Your task to perform on an android device: turn vacation reply on in the gmail app Image 0: 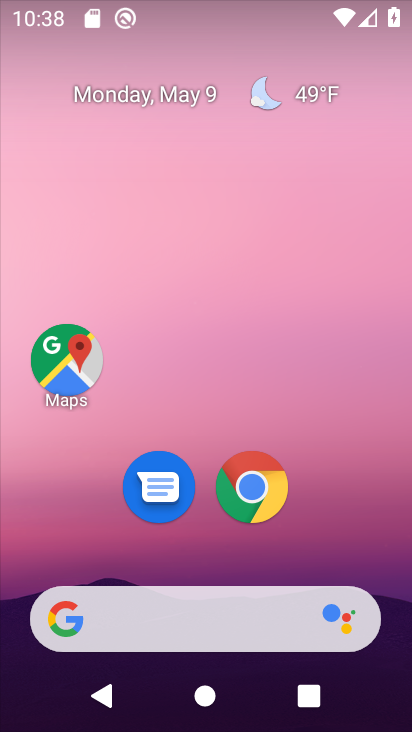
Step 0: drag from (329, 526) to (154, 135)
Your task to perform on an android device: turn vacation reply on in the gmail app Image 1: 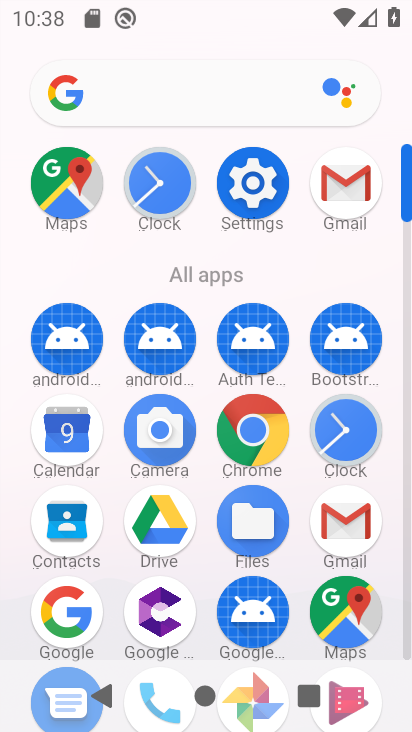
Step 1: click (349, 182)
Your task to perform on an android device: turn vacation reply on in the gmail app Image 2: 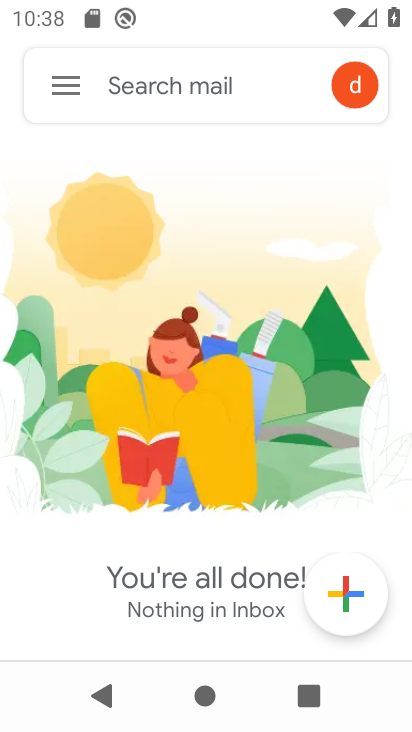
Step 2: click (63, 87)
Your task to perform on an android device: turn vacation reply on in the gmail app Image 3: 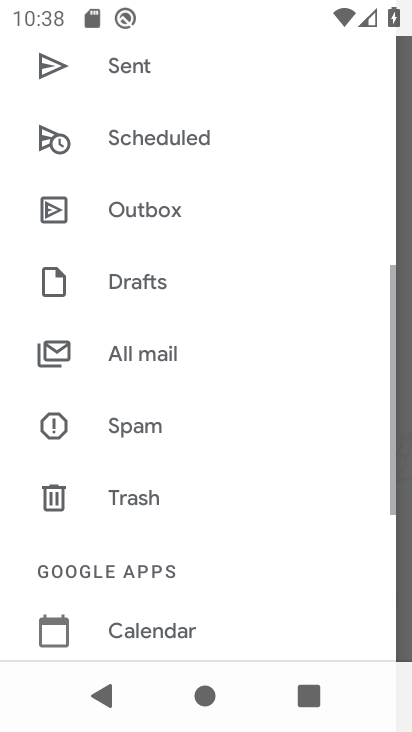
Step 3: drag from (159, 600) to (159, 196)
Your task to perform on an android device: turn vacation reply on in the gmail app Image 4: 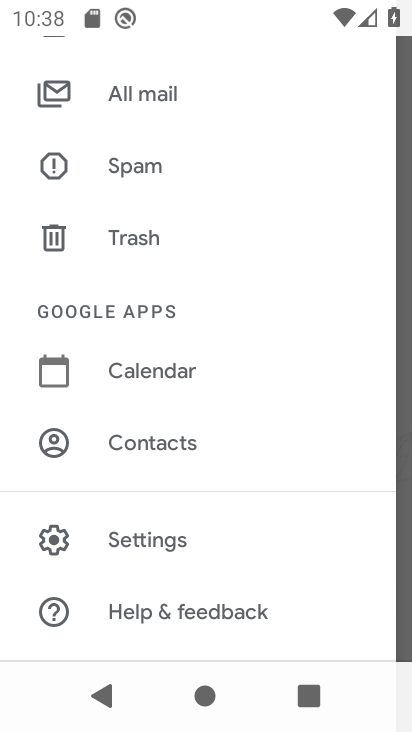
Step 4: click (157, 542)
Your task to perform on an android device: turn vacation reply on in the gmail app Image 5: 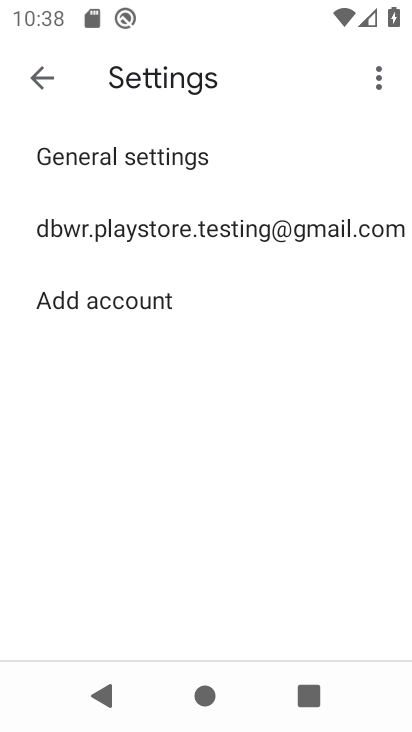
Step 5: click (184, 234)
Your task to perform on an android device: turn vacation reply on in the gmail app Image 6: 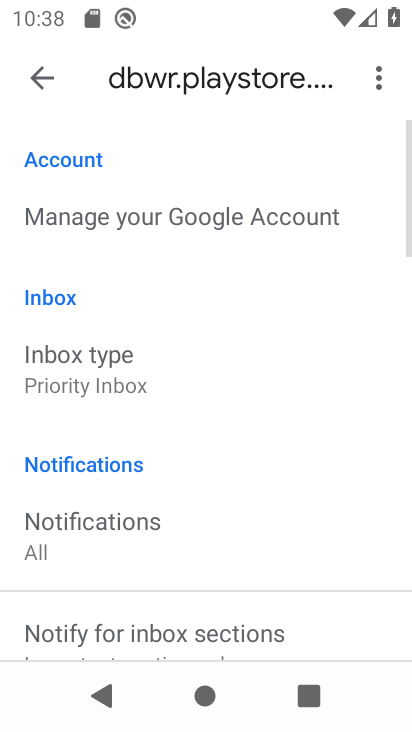
Step 6: drag from (146, 639) to (146, 255)
Your task to perform on an android device: turn vacation reply on in the gmail app Image 7: 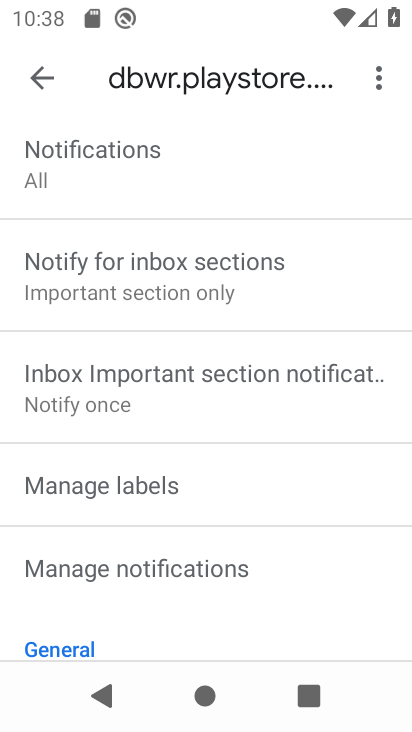
Step 7: drag from (121, 592) to (103, 212)
Your task to perform on an android device: turn vacation reply on in the gmail app Image 8: 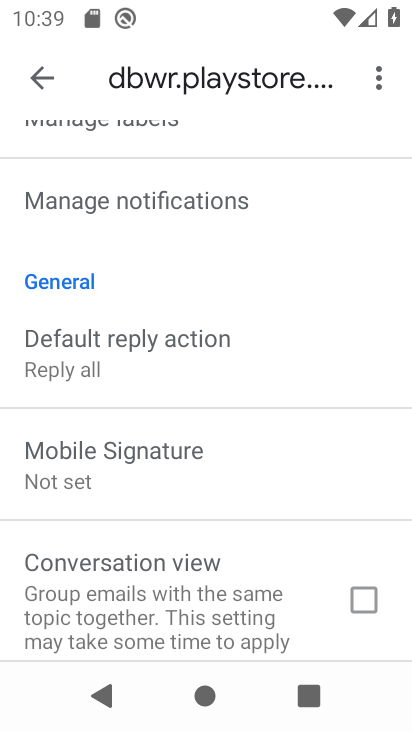
Step 8: drag from (142, 556) to (165, 184)
Your task to perform on an android device: turn vacation reply on in the gmail app Image 9: 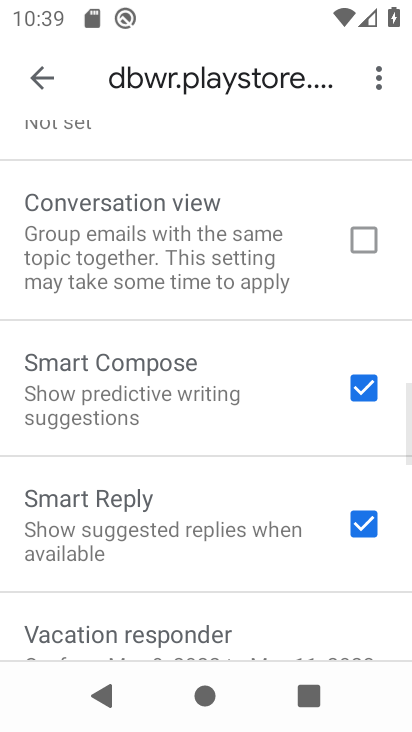
Step 9: drag from (70, 596) to (114, 370)
Your task to perform on an android device: turn vacation reply on in the gmail app Image 10: 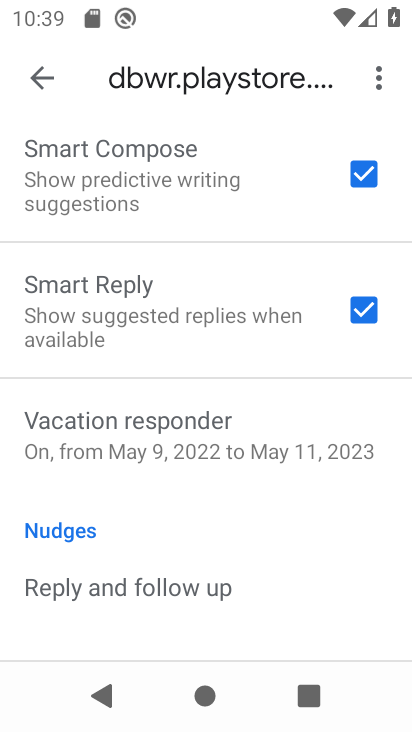
Step 10: click (121, 441)
Your task to perform on an android device: turn vacation reply on in the gmail app Image 11: 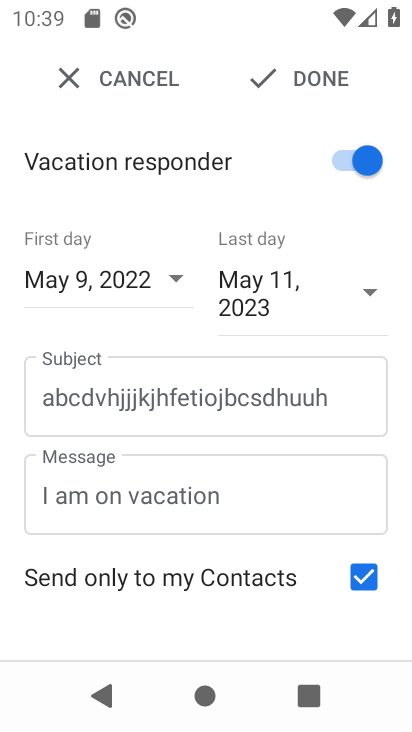
Step 11: task complete